Your task to perform on an android device: remove spam from my inbox in the gmail app Image 0: 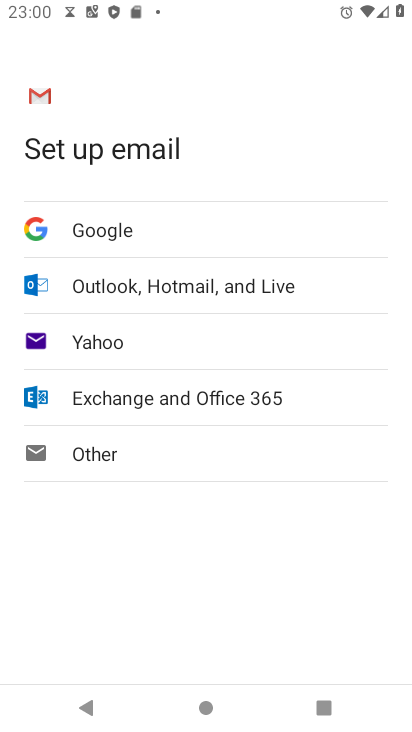
Step 0: press home button
Your task to perform on an android device: remove spam from my inbox in the gmail app Image 1: 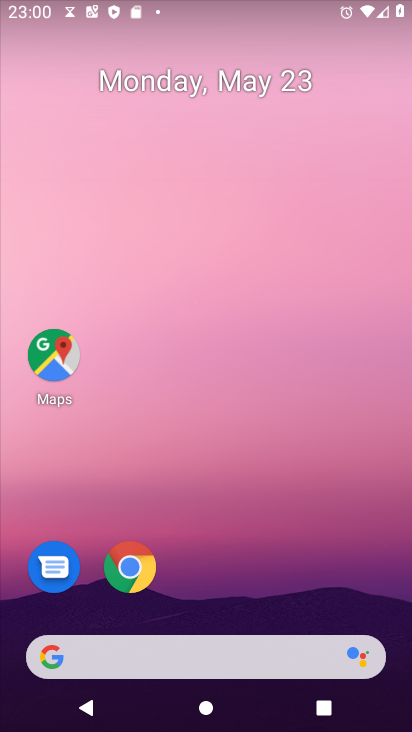
Step 1: drag from (260, 605) to (273, 319)
Your task to perform on an android device: remove spam from my inbox in the gmail app Image 2: 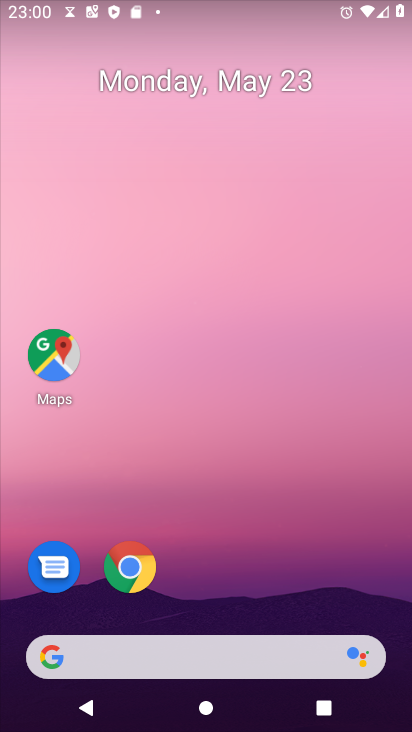
Step 2: drag from (280, 629) to (278, 338)
Your task to perform on an android device: remove spam from my inbox in the gmail app Image 3: 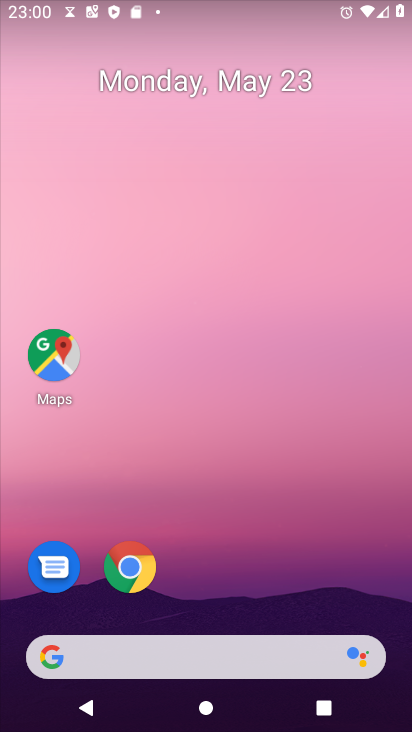
Step 3: drag from (279, 517) to (293, 373)
Your task to perform on an android device: remove spam from my inbox in the gmail app Image 4: 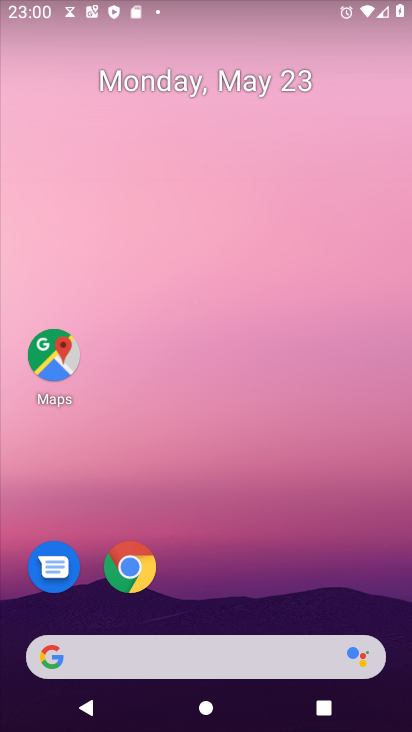
Step 4: drag from (224, 637) to (279, 253)
Your task to perform on an android device: remove spam from my inbox in the gmail app Image 5: 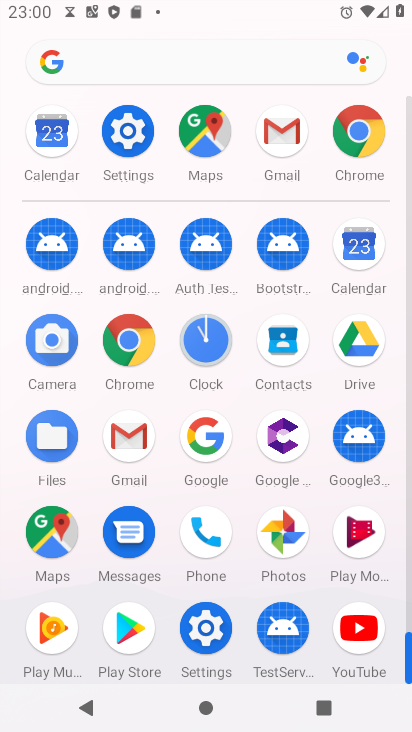
Step 5: click (267, 130)
Your task to perform on an android device: remove spam from my inbox in the gmail app Image 6: 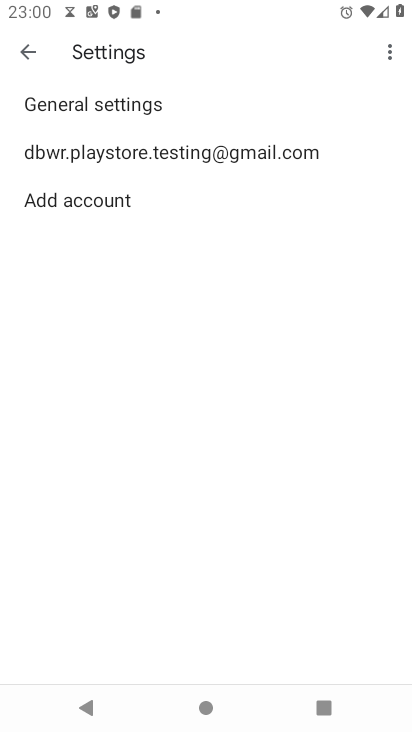
Step 6: click (198, 152)
Your task to perform on an android device: remove spam from my inbox in the gmail app Image 7: 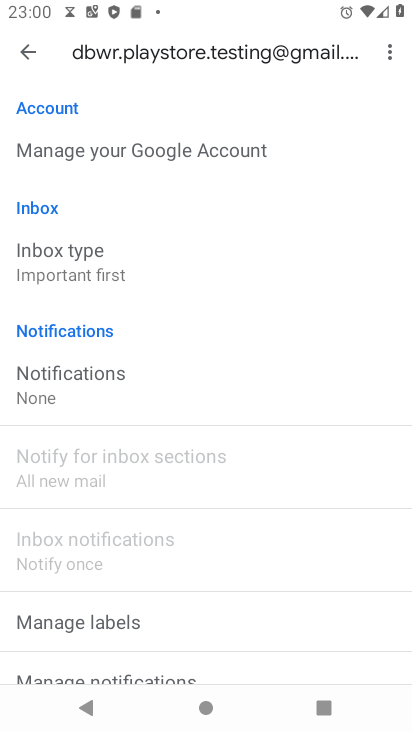
Step 7: click (34, 57)
Your task to perform on an android device: remove spam from my inbox in the gmail app Image 8: 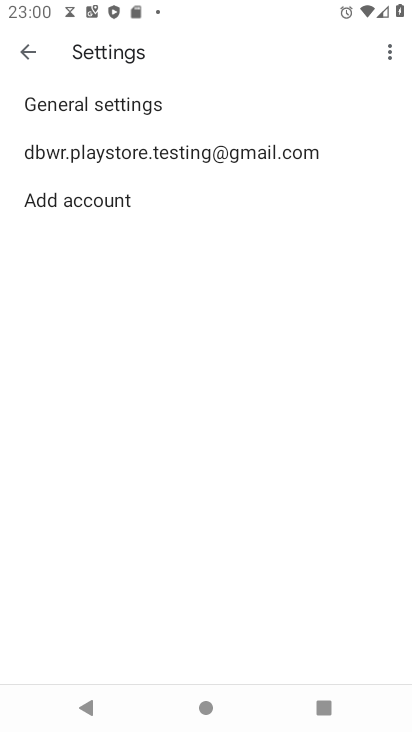
Step 8: click (34, 57)
Your task to perform on an android device: remove spam from my inbox in the gmail app Image 9: 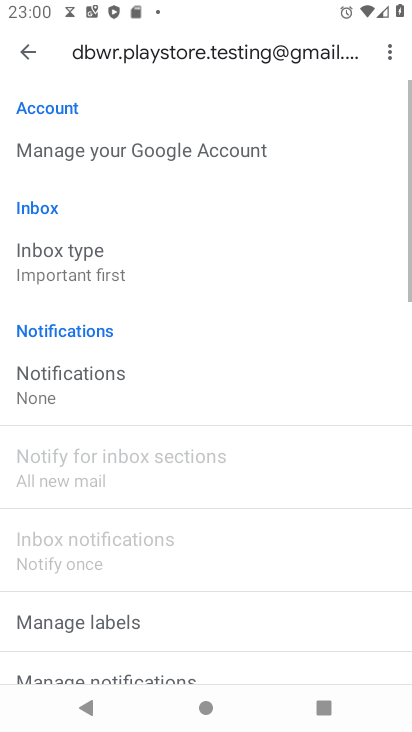
Step 9: click (33, 56)
Your task to perform on an android device: remove spam from my inbox in the gmail app Image 10: 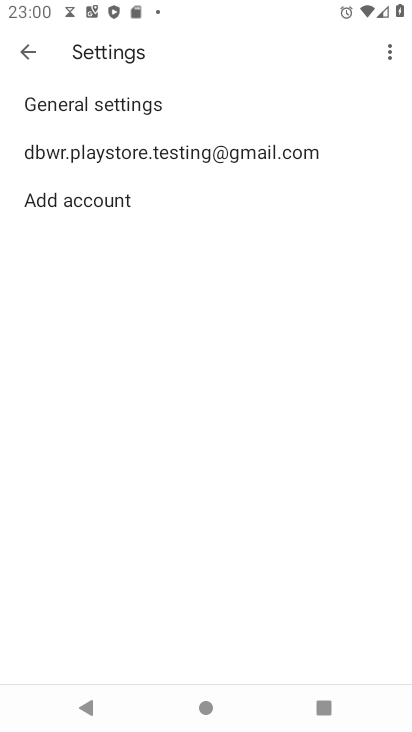
Step 10: click (31, 51)
Your task to perform on an android device: remove spam from my inbox in the gmail app Image 11: 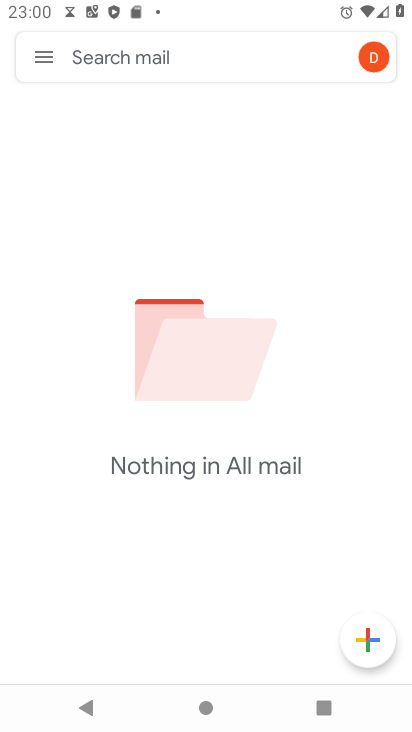
Step 11: click (31, 51)
Your task to perform on an android device: remove spam from my inbox in the gmail app Image 12: 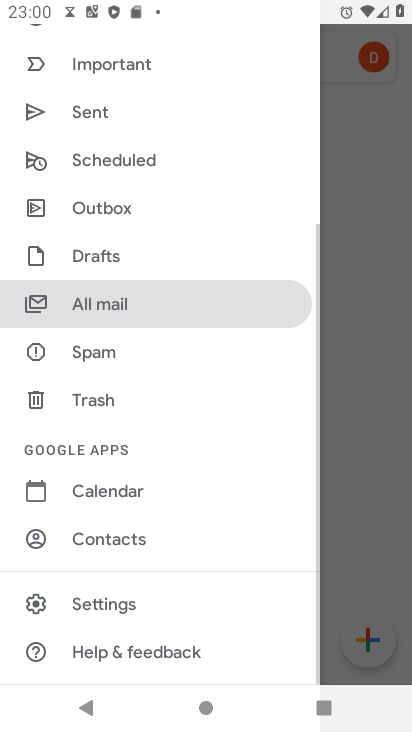
Step 12: click (107, 363)
Your task to perform on an android device: remove spam from my inbox in the gmail app Image 13: 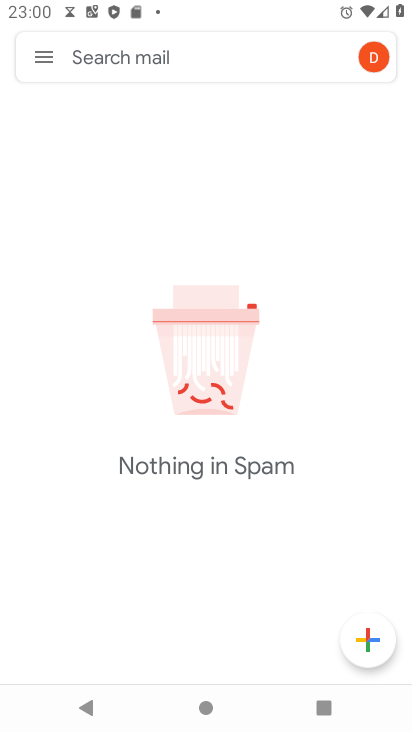
Step 13: task complete